Your task to perform on an android device: Show me recent news Image 0: 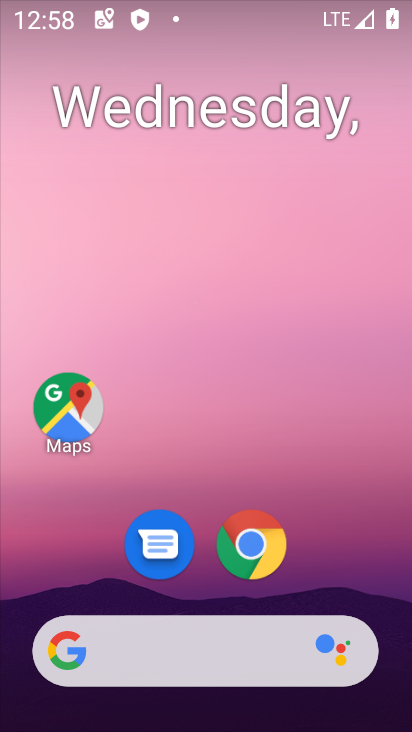
Step 0: drag from (388, 664) to (320, 19)
Your task to perform on an android device: Show me recent news Image 1: 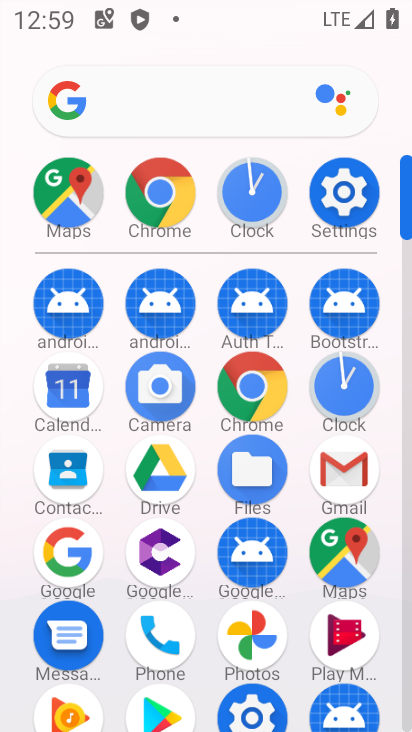
Step 1: click (249, 403)
Your task to perform on an android device: Show me recent news Image 2: 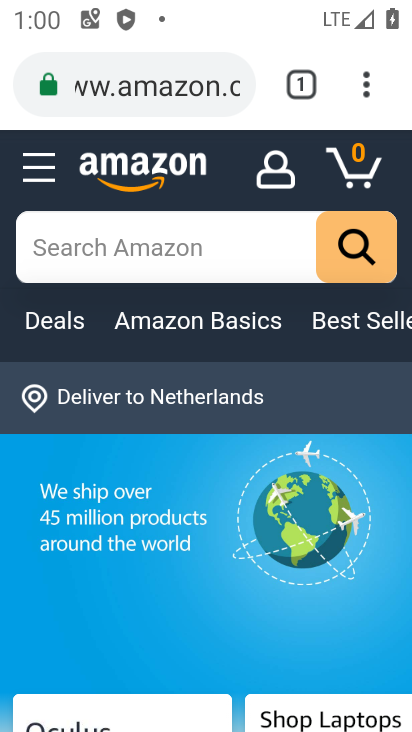
Step 2: press back button
Your task to perform on an android device: Show me recent news Image 3: 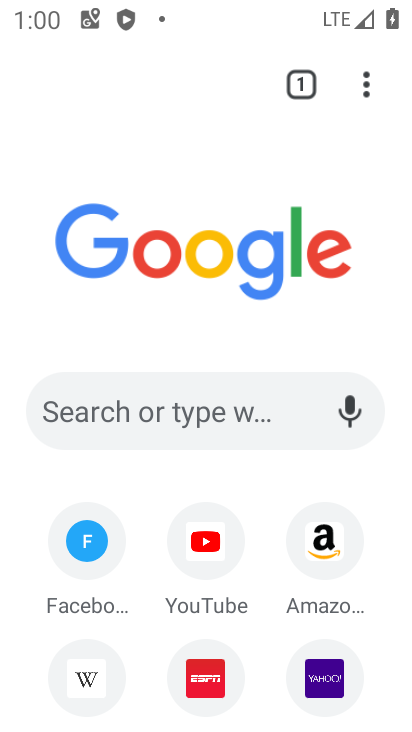
Step 3: drag from (154, 655) to (138, 76)
Your task to perform on an android device: Show me recent news Image 4: 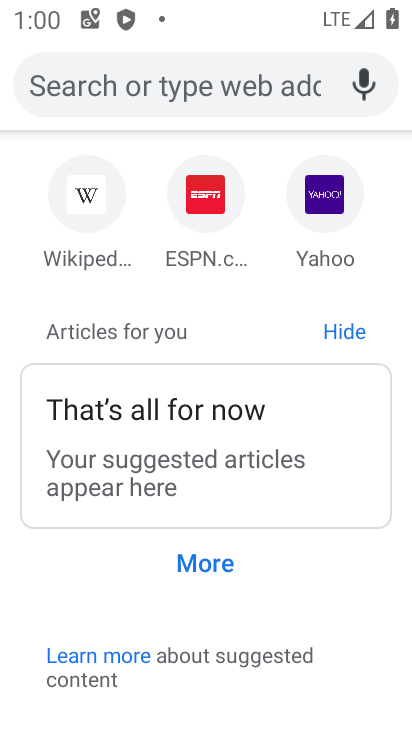
Step 4: click (220, 570)
Your task to perform on an android device: Show me recent news Image 5: 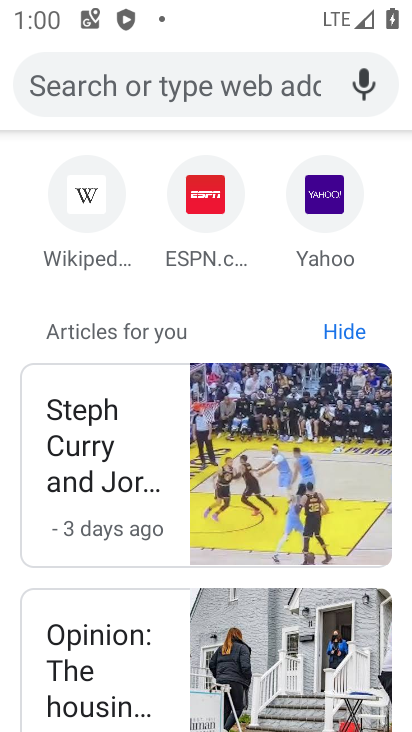
Step 5: click (116, 454)
Your task to perform on an android device: Show me recent news Image 6: 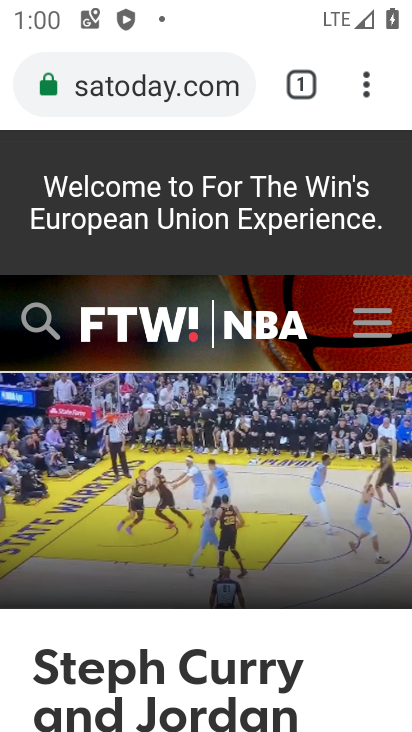
Step 6: task complete